Your task to perform on an android device: Show me recent news Image 0: 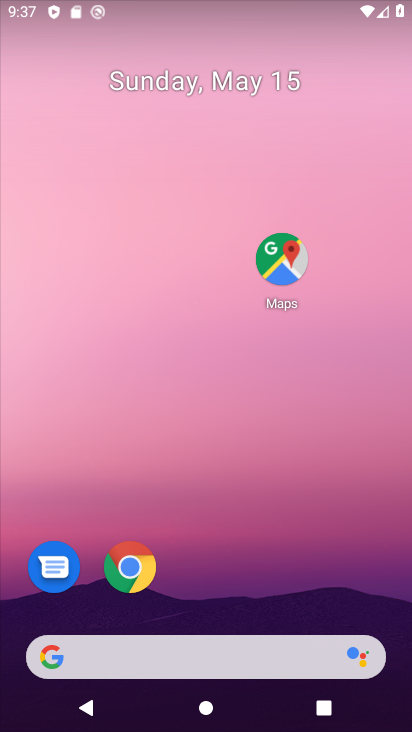
Step 0: drag from (219, 572) to (198, 124)
Your task to perform on an android device: Show me recent news Image 1: 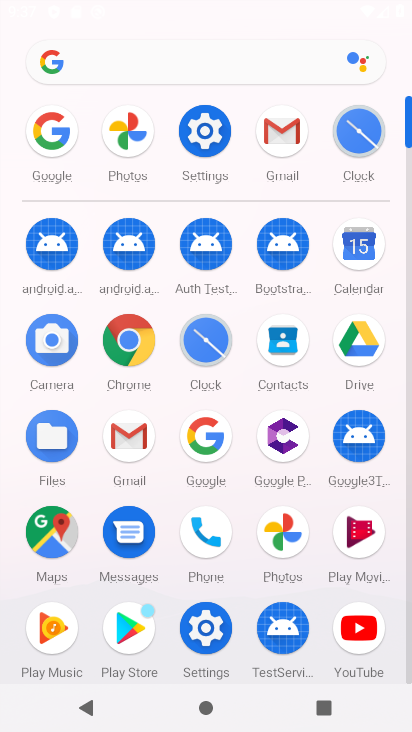
Step 1: click (204, 432)
Your task to perform on an android device: Show me recent news Image 2: 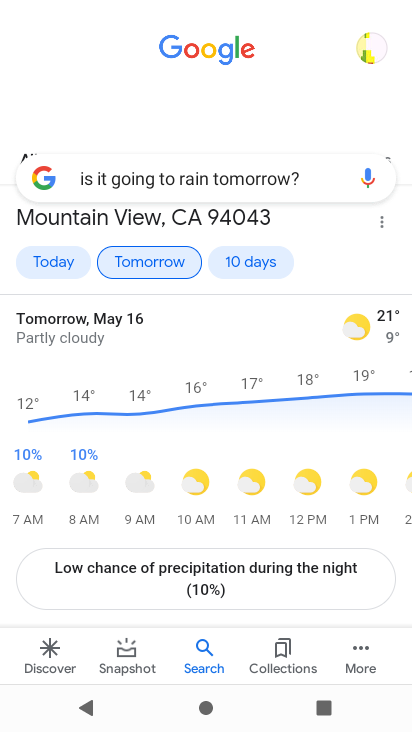
Step 2: click (315, 177)
Your task to perform on an android device: Show me recent news Image 3: 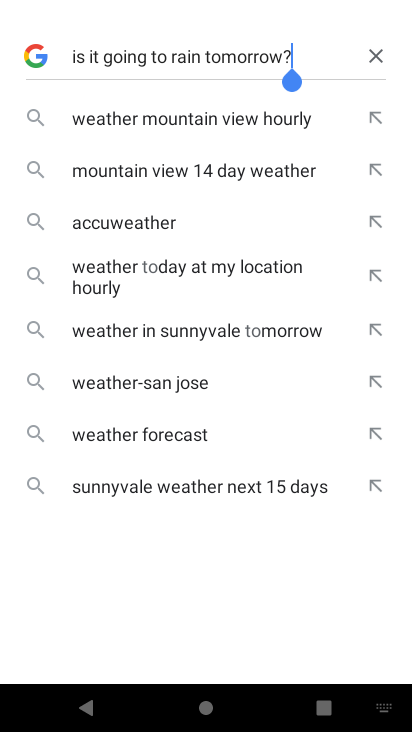
Step 3: click (375, 56)
Your task to perform on an android device: Show me recent news Image 4: 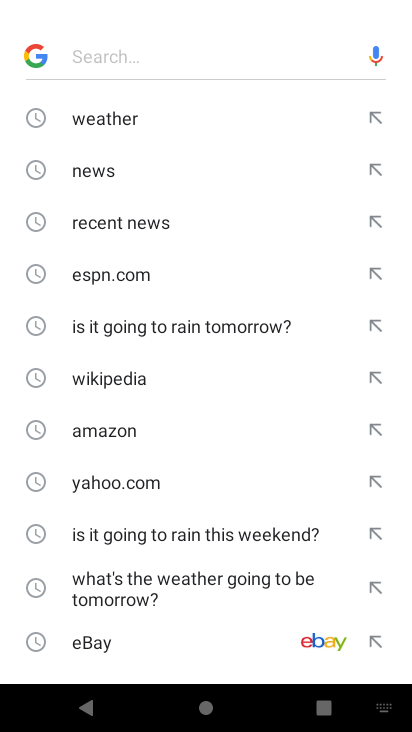
Step 4: click (137, 169)
Your task to perform on an android device: Show me recent news Image 5: 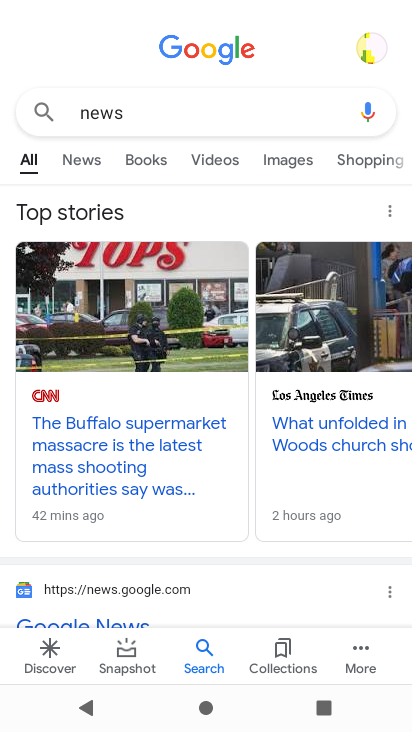
Step 5: task complete